Your task to perform on an android device: Go to ESPN.com Image 0: 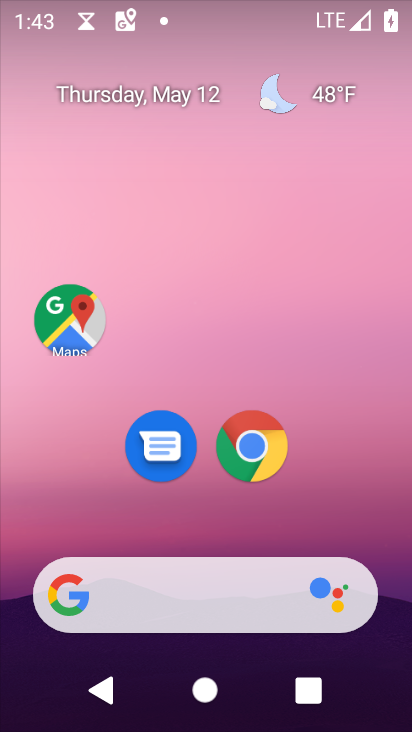
Step 0: click (190, 584)
Your task to perform on an android device: Go to ESPN.com Image 1: 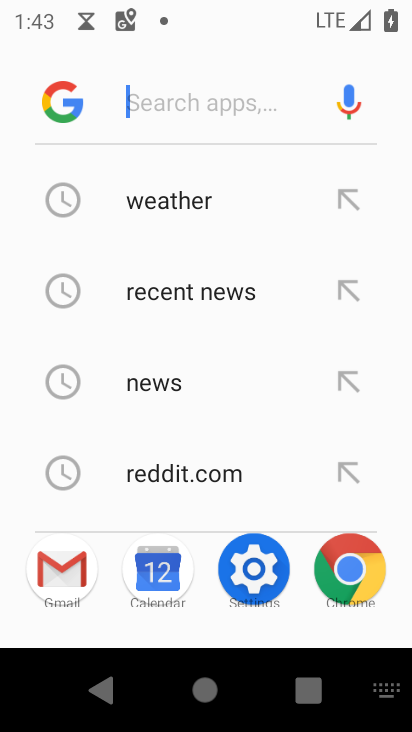
Step 1: type "ESPN.com"
Your task to perform on an android device: Go to ESPN.com Image 2: 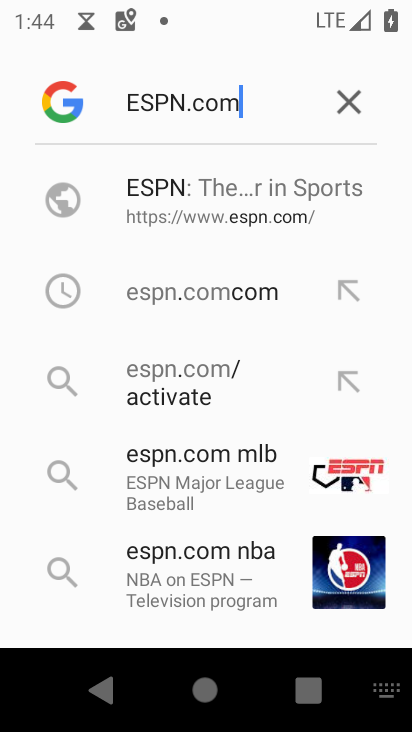
Step 2: click (272, 193)
Your task to perform on an android device: Go to ESPN.com Image 3: 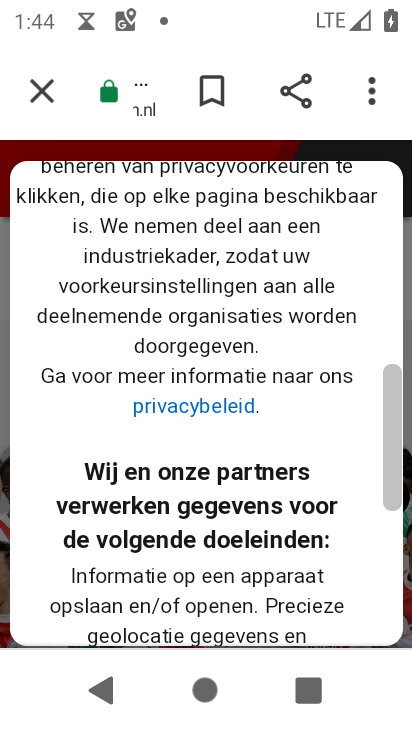
Step 3: task complete